Your task to perform on an android device: Go to Google Image 0: 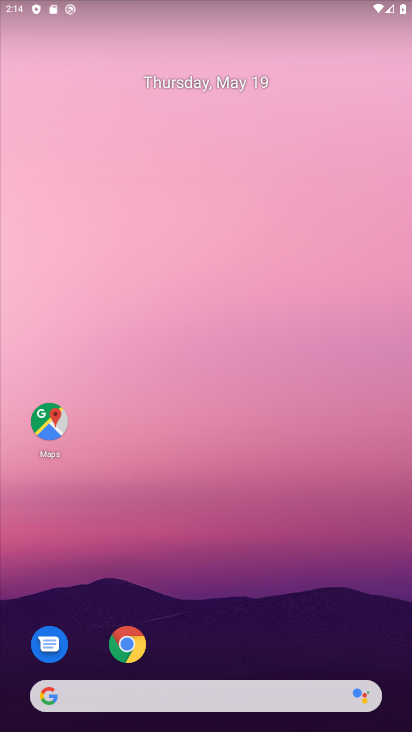
Step 0: drag from (187, 608) to (157, 175)
Your task to perform on an android device: Go to Google Image 1: 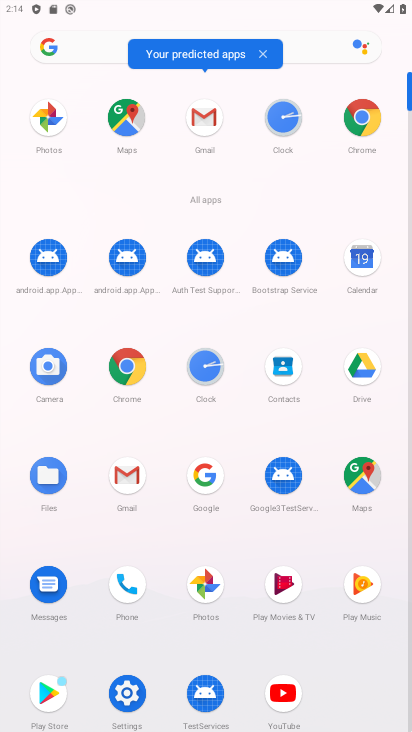
Step 1: click (203, 478)
Your task to perform on an android device: Go to Google Image 2: 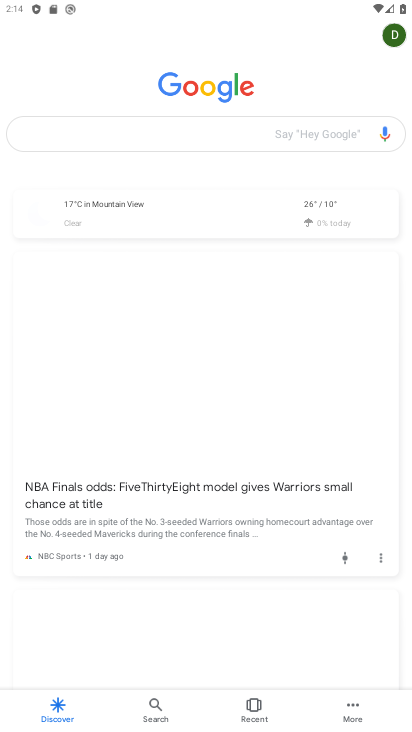
Step 2: task complete